Your task to perform on an android device: change timer sound Image 0: 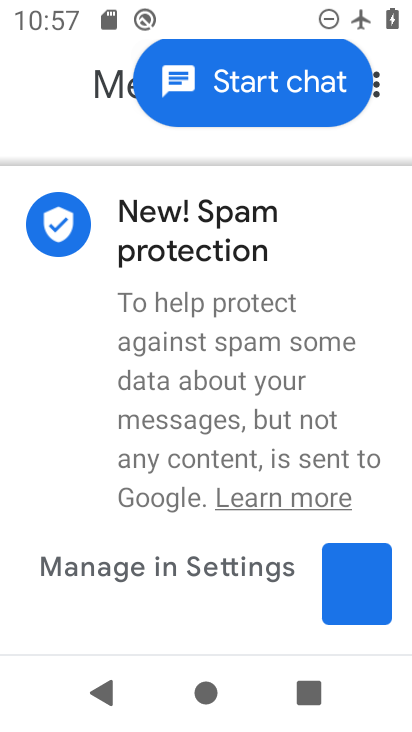
Step 0: press home button
Your task to perform on an android device: change timer sound Image 1: 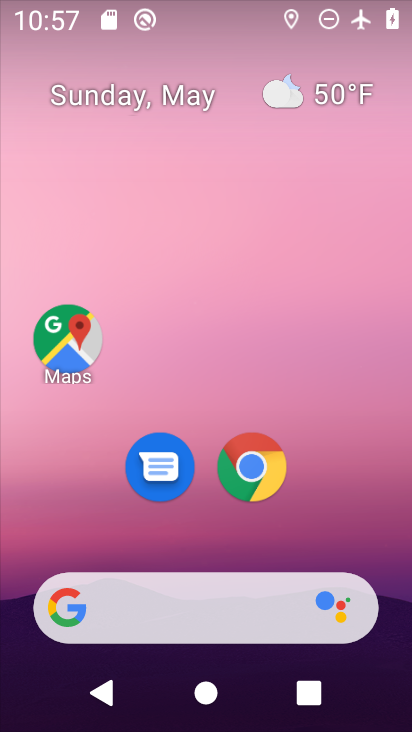
Step 1: drag from (222, 547) to (226, 92)
Your task to perform on an android device: change timer sound Image 2: 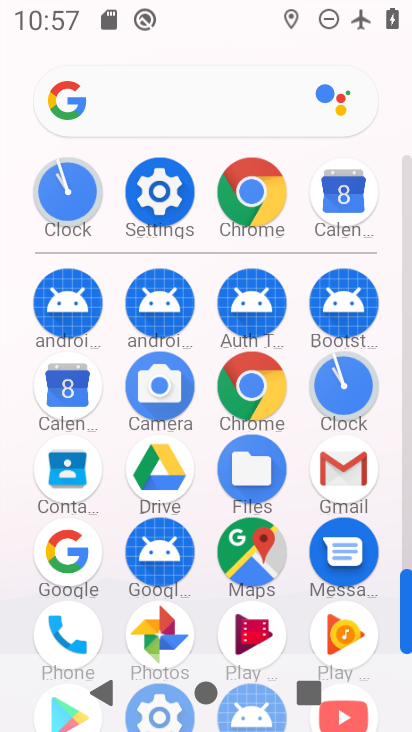
Step 2: click (363, 374)
Your task to perform on an android device: change timer sound Image 3: 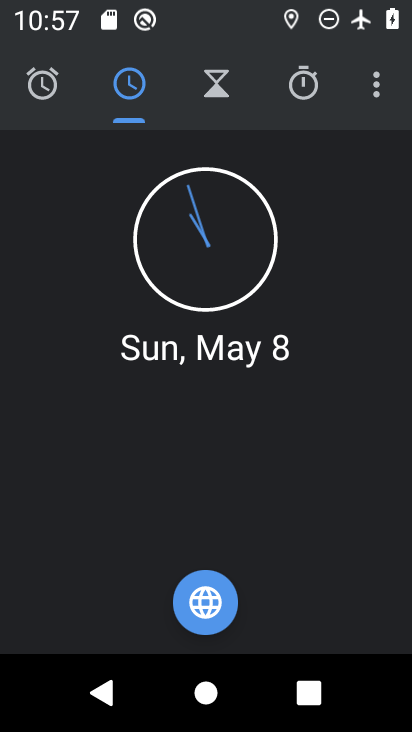
Step 3: click (383, 69)
Your task to perform on an android device: change timer sound Image 4: 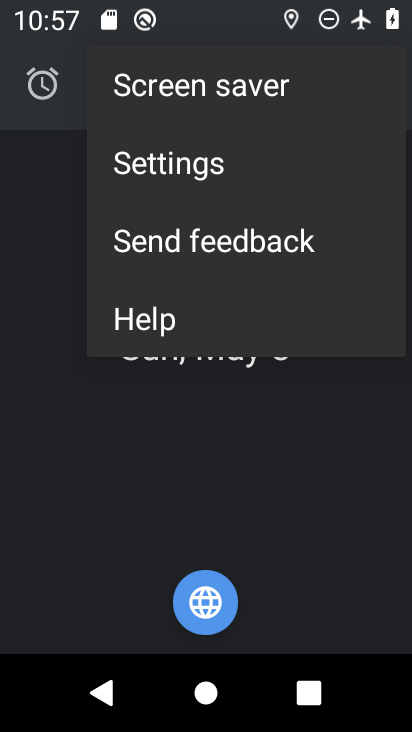
Step 4: click (242, 162)
Your task to perform on an android device: change timer sound Image 5: 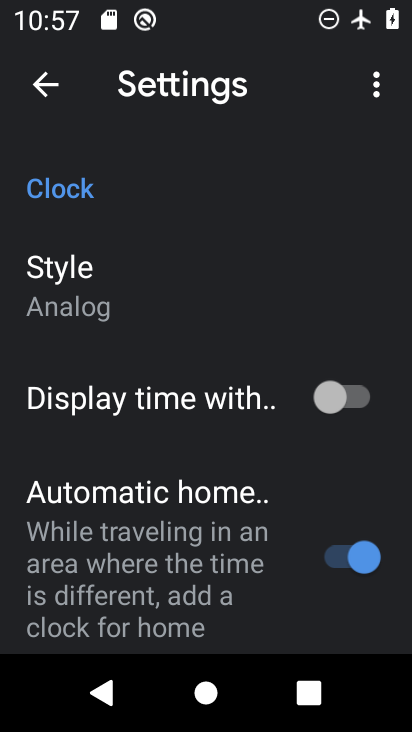
Step 5: drag from (176, 525) to (208, 219)
Your task to perform on an android device: change timer sound Image 6: 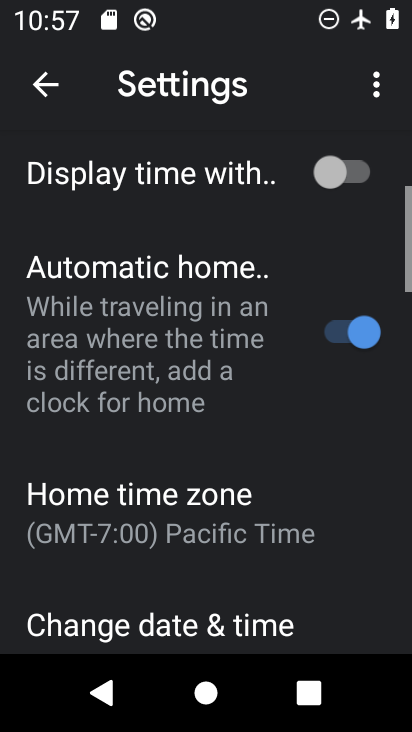
Step 6: drag from (137, 516) to (163, 240)
Your task to perform on an android device: change timer sound Image 7: 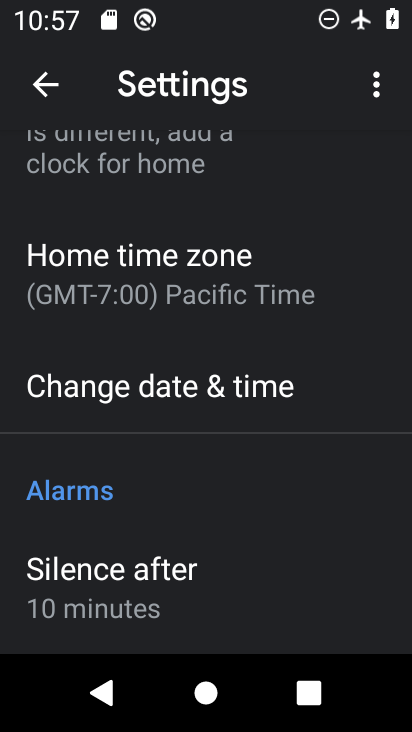
Step 7: drag from (153, 539) to (240, 215)
Your task to perform on an android device: change timer sound Image 8: 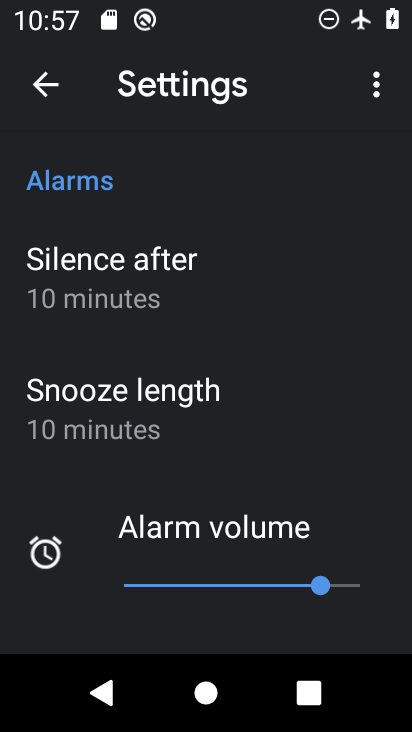
Step 8: drag from (209, 552) to (252, 185)
Your task to perform on an android device: change timer sound Image 9: 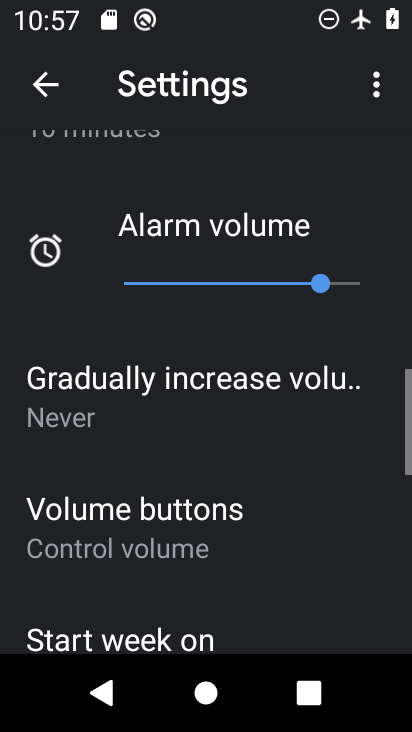
Step 9: drag from (188, 545) to (234, 182)
Your task to perform on an android device: change timer sound Image 10: 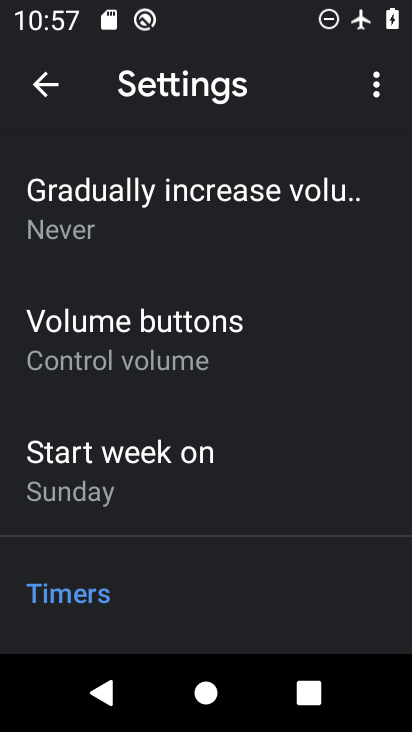
Step 10: drag from (195, 558) to (232, 204)
Your task to perform on an android device: change timer sound Image 11: 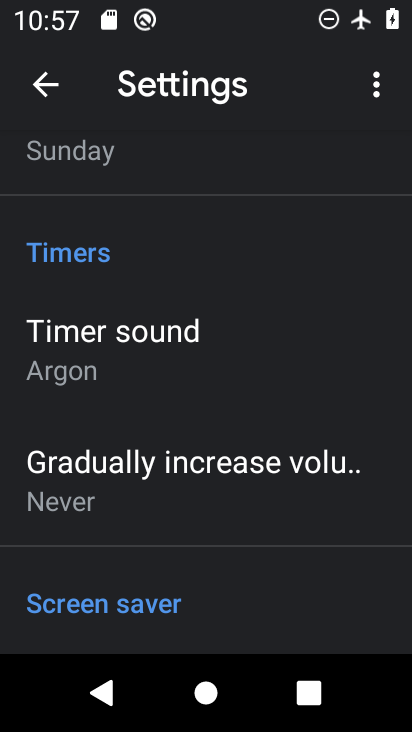
Step 11: click (166, 354)
Your task to perform on an android device: change timer sound Image 12: 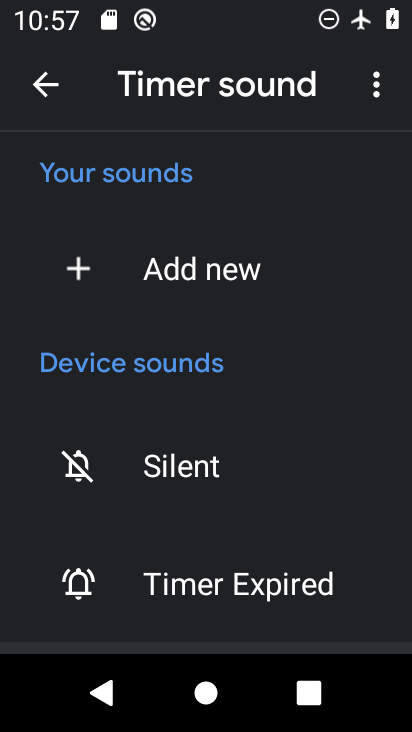
Step 12: click (174, 597)
Your task to perform on an android device: change timer sound Image 13: 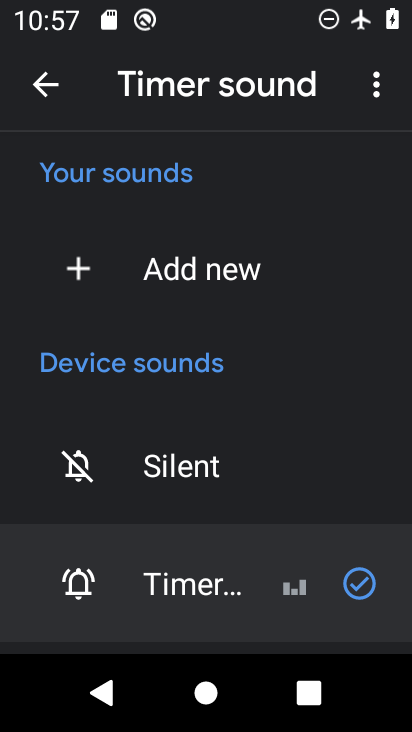
Step 13: task complete